Your task to perform on an android device: change the upload size in google photos Image 0: 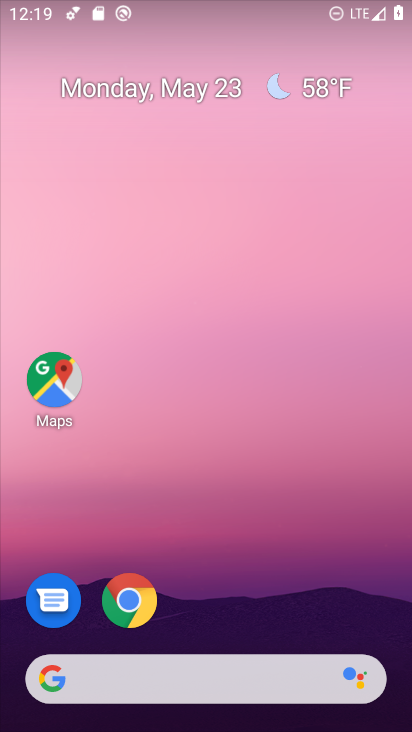
Step 0: drag from (334, 527) to (311, 118)
Your task to perform on an android device: change the upload size in google photos Image 1: 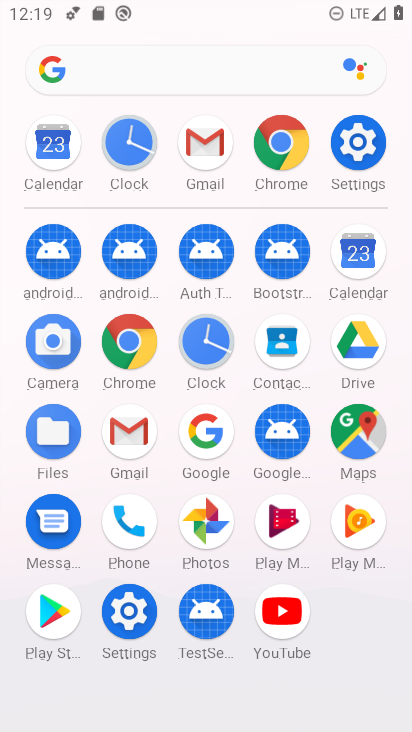
Step 1: click (215, 525)
Your task to perform on an android device: change the upload size in google photos Image 2: 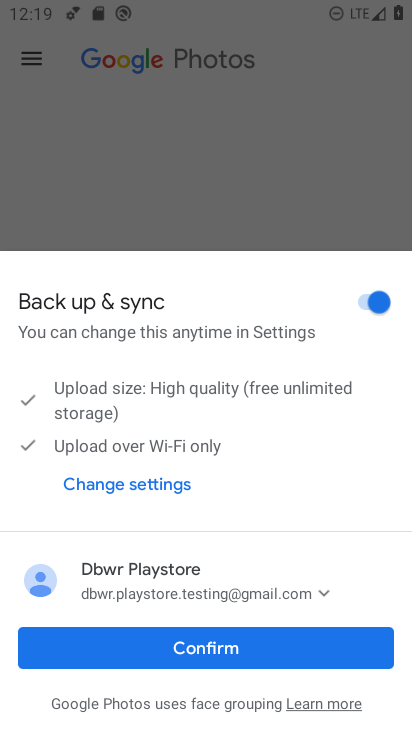
Step 2: click (142, 665)
Your task to perform on an android device: change the upload size in google photos Image 3: 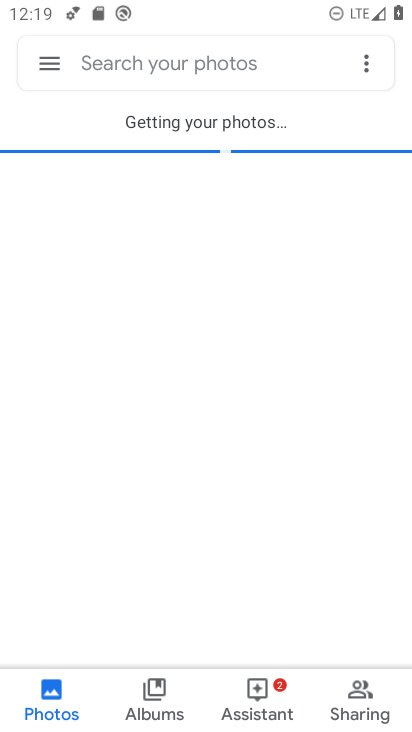
Step 3: click (36, 68)
Your task to perform on an android device: change the upload size in google photos Image 4: 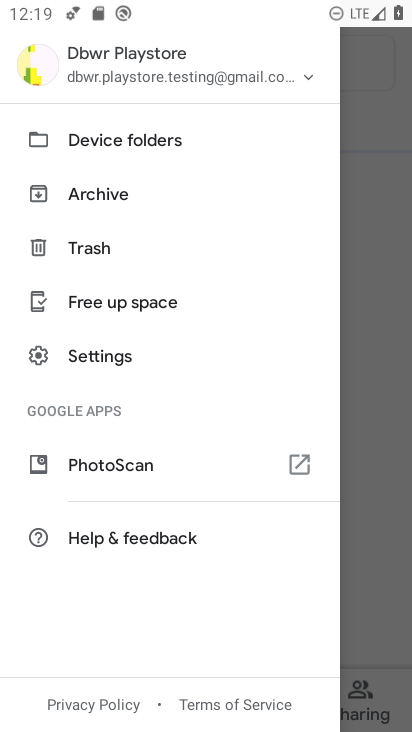
Step 4: click (124, 362)
Your task to perform on an android device: change the upload size in google photos Image 5: 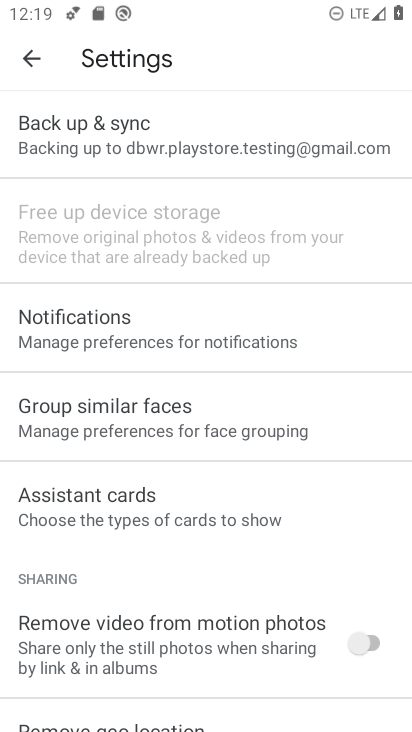
Step 5: click (66, 135)
Your task to perform on an android device: change the upload size in google photos Image 6: 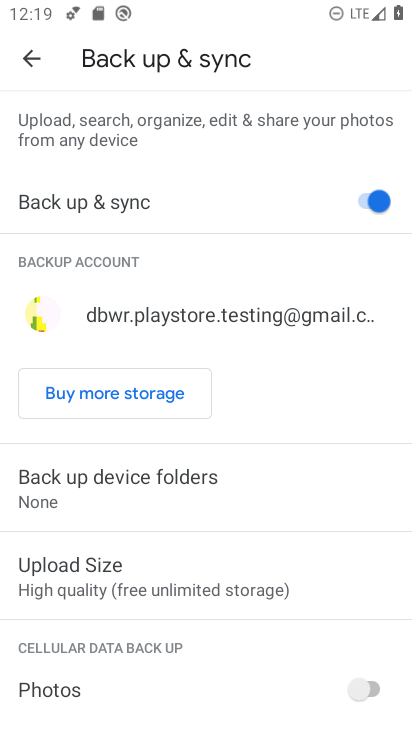
Step 6: click (137, 584)
Your task to perform on an android device: change the upload size in google photos Image 7: 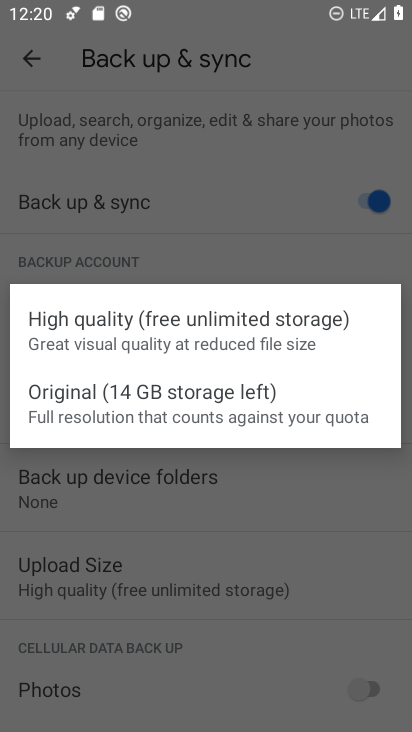
Step 7: click (145, 397)
Your task to perform on an android device: change the upload size in google photos Image 8: 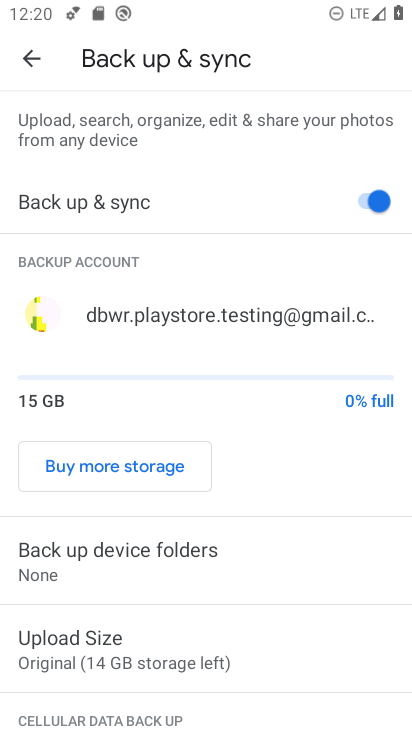
Step 8: task complete